Your task to perform on an android device: refresh tabs in the chrome app Image 0: 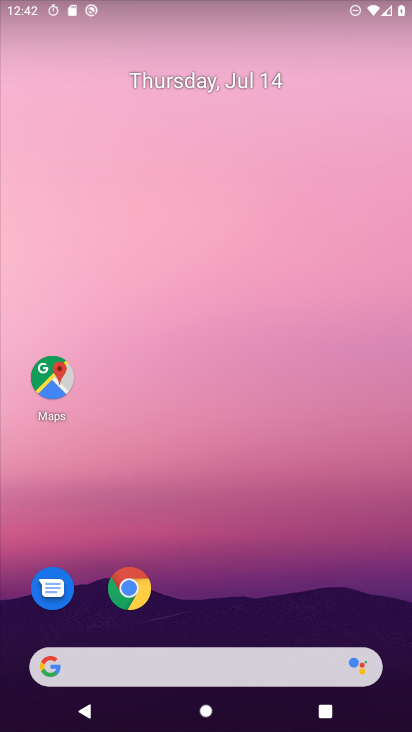
Step 0: click (131, 586)
Your task to perform on an android device: refresh tabs in the chrome app Image 1: 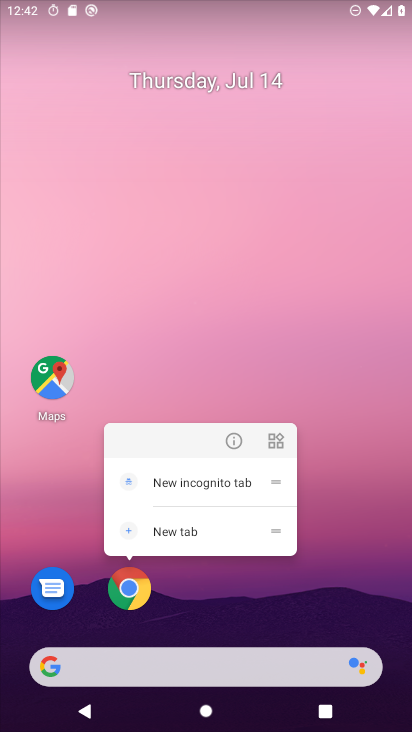
Step 1: click (131, 586)
Your task to perform on an android device: refresh tabs in the chrome app Image 2: 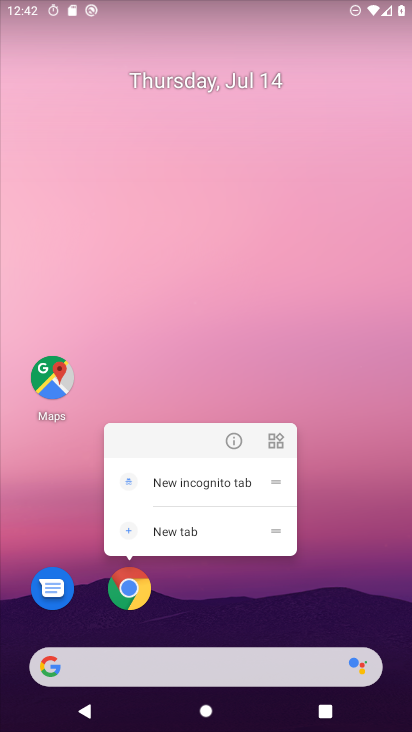
Step 2: click (131, 587)
Your task to perform on an android device: refresh tabs in the chrome app Image 3: 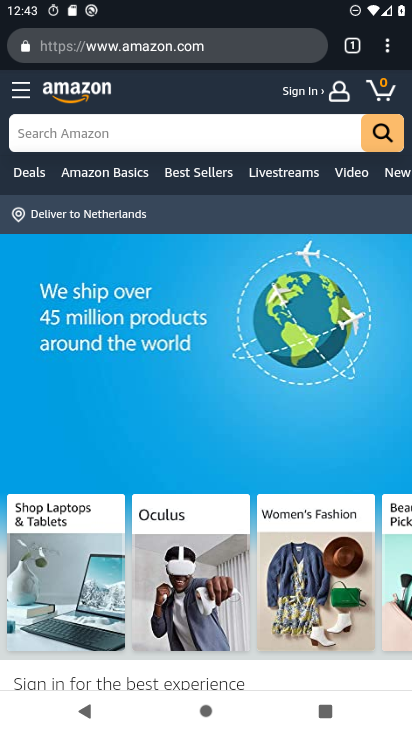
Step 3: click (386, 61)
Your task to perform on an android device: refresh tabs in the chrome app Image 4: 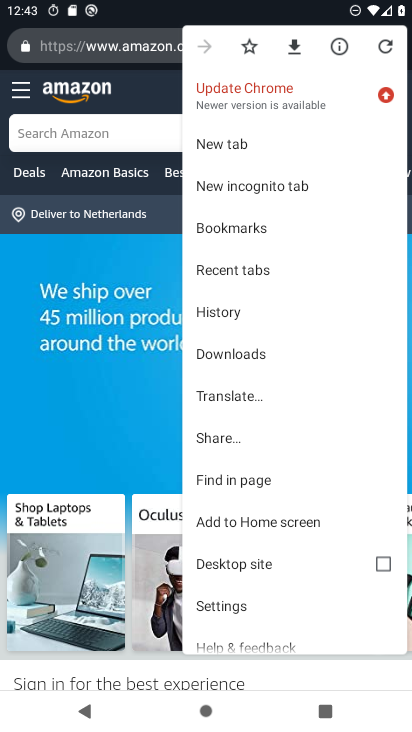
Step 4: click (386, 50)
Your task to perform on an android device: refresh tabs in the chrome app Image 5: 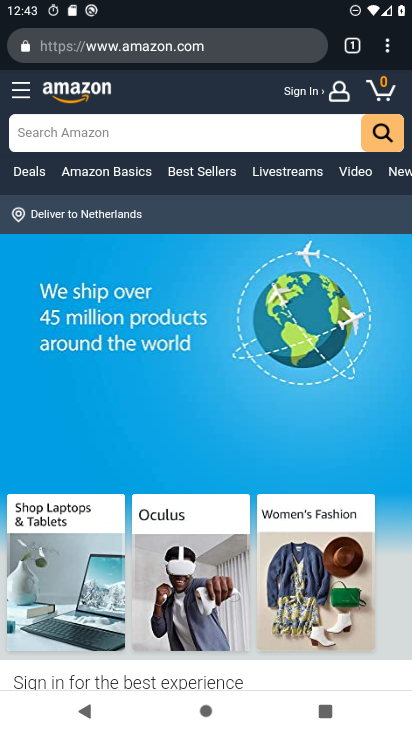
Step 5: task complete